Your task to perform on an android device: Go to network settings Image 0: 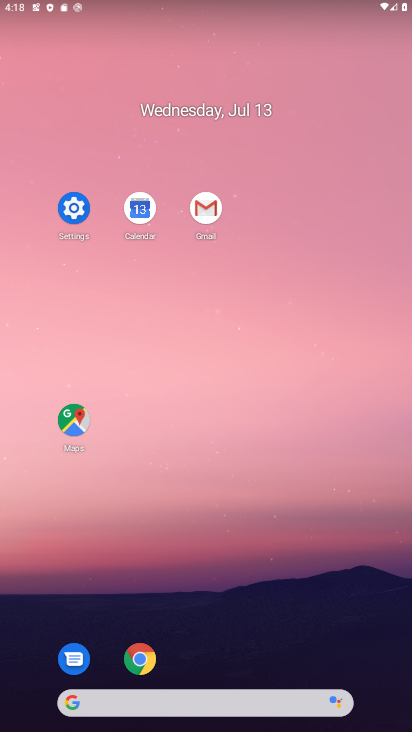
Step 0: click (75, 198)
Your task to perform on an android device: Go to network settings Image 1: 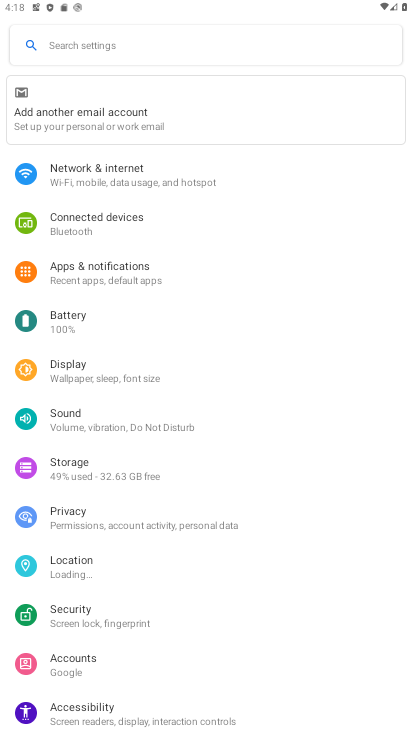
Step 1: click (150, 176)
Your task to perform on an android device: Go to network settings Image 2: 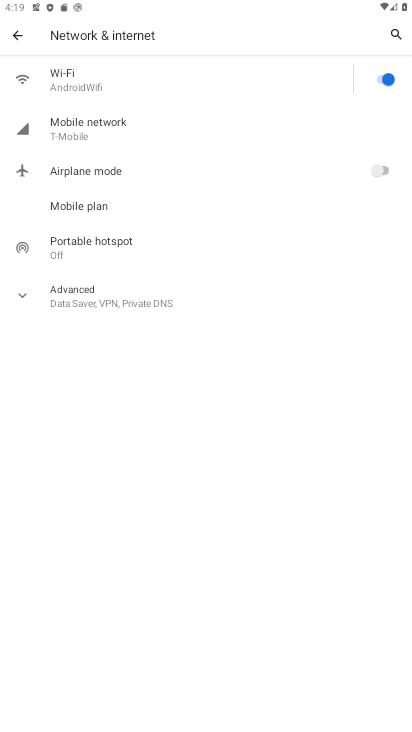
Step 2: task complete